Your task to perform on an android device: Check the news Image 0: 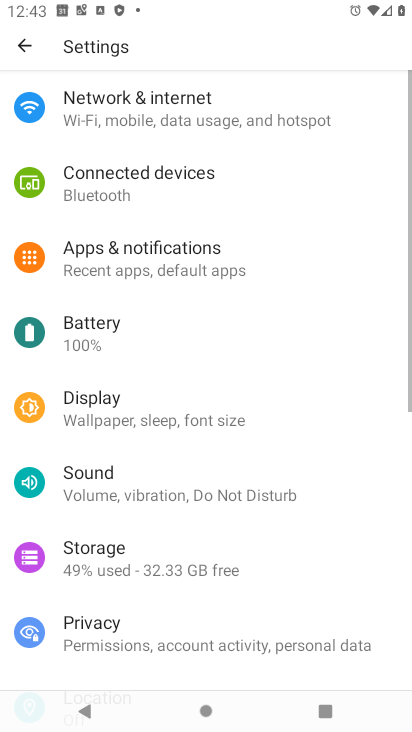
Step 0: press home button
Your task to perform on an android device: Check the news Image 1: 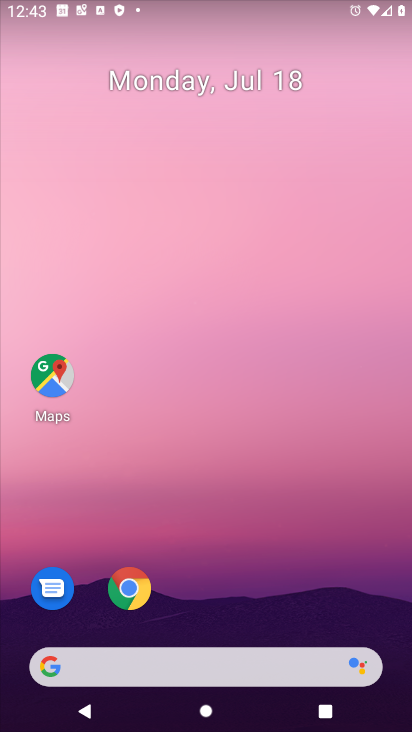
Step 1: drag from (201, 632) to (282, 289)
Your task to perform on an android device: Check the news Image 2: 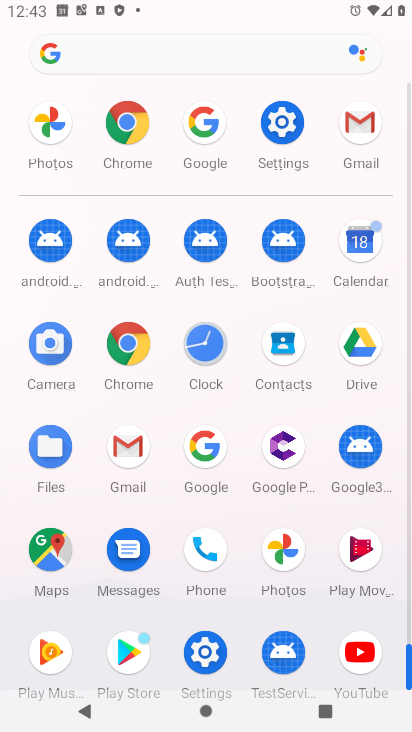
Step 2: click (201, 463)
Your task to perform on an android device: Check the news Image 3: 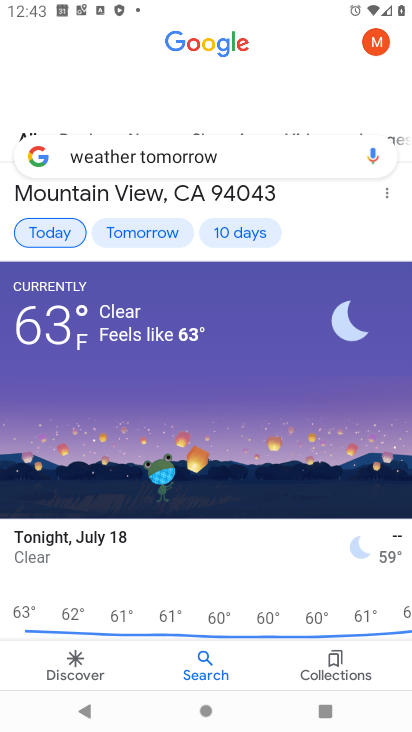
Step 3: click (308, 170)
Your task to perform on an android device: Check the news Image 4: 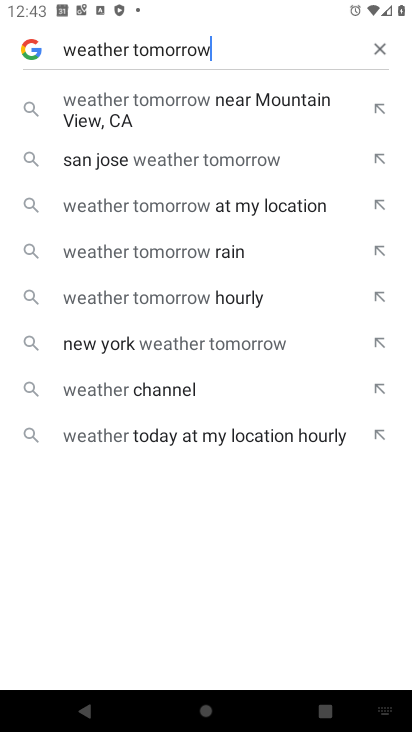
Step 4: click (385, 61)
Your task to perform on an android device: Check the news Image 5: 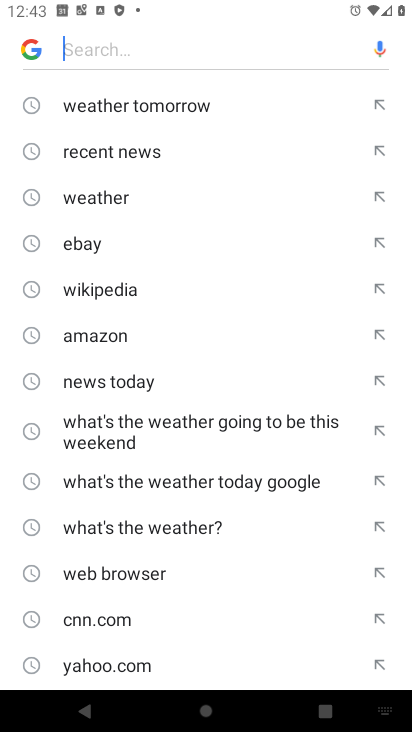
Step 5: click (112, 384)
Your task to perform on an android device: Check the news Image 6: 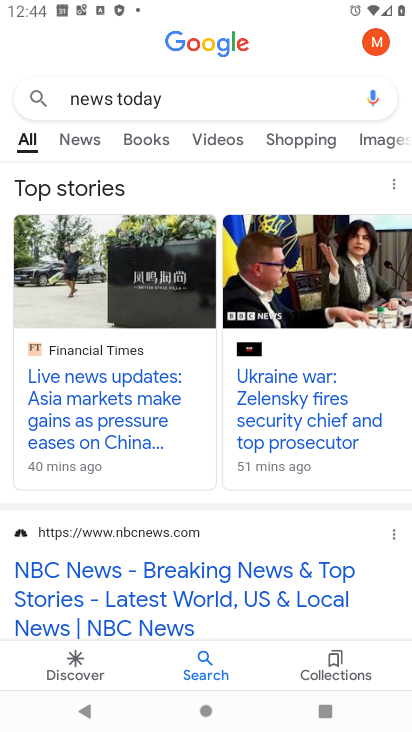
Step 6: task complete